Your task to perform on an android device: Open maps Image 0: 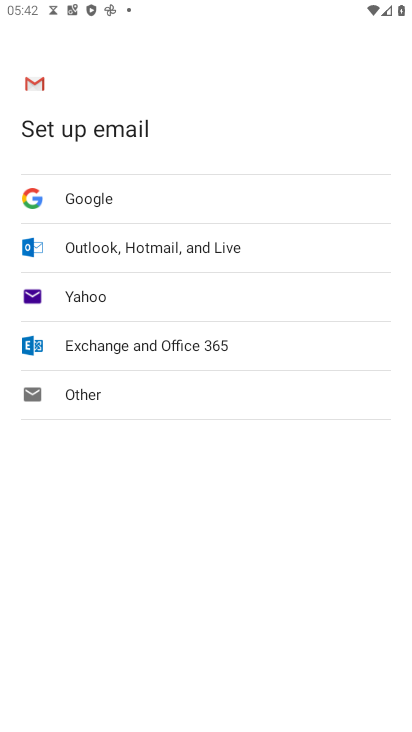
Step 0: press home button
Your task to perform on an android device: Open maps Image 1: 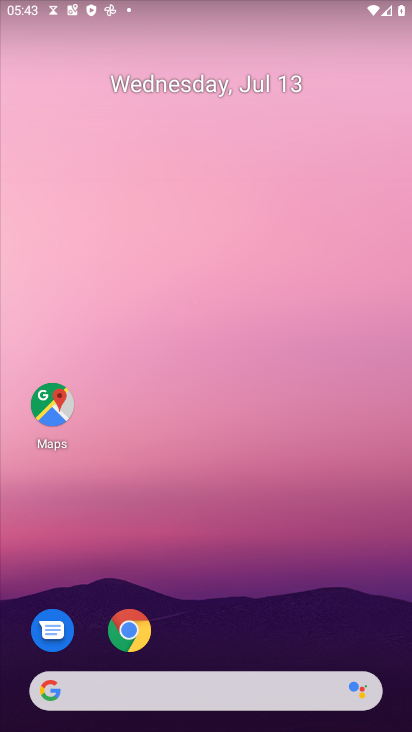
Step 1: drag from (259, 712) to (188, 11)
Your task to perform on an android device: Open maps Image 2: 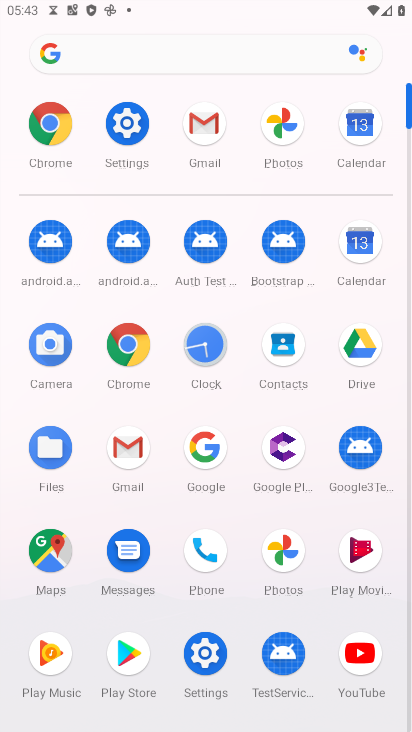
Step 2: click (50, 561)
Your task to perform on an android device: Open maps Image 3: 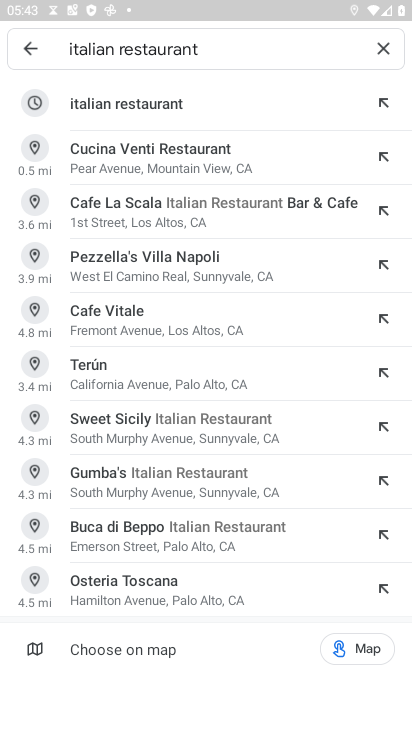
Step 3: task complete